Your task to perform on an android device: Open CNN.com Image 0: 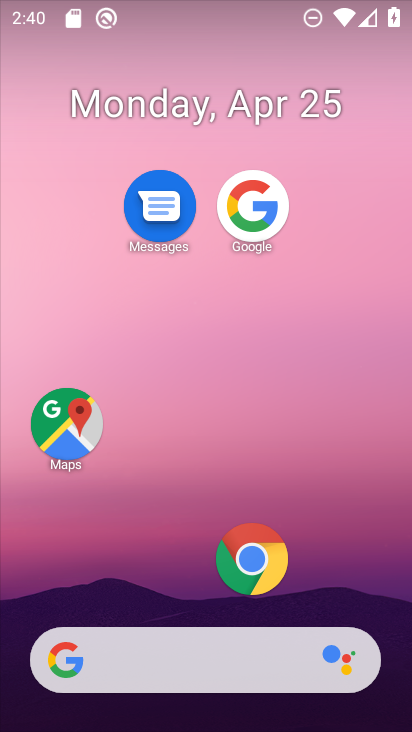
Step 0: click (254, 558)
Your task to perform on an android device: Open CNN.com Image 1: 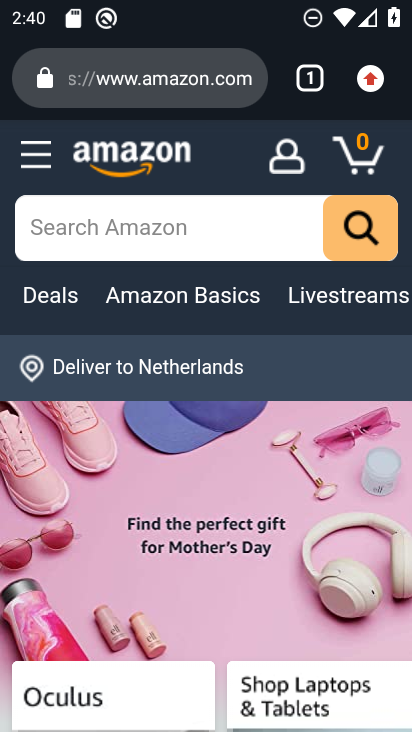
Step 1: click (224, 71)
Your task to perform on an android device: Open CNN.com Image 2: 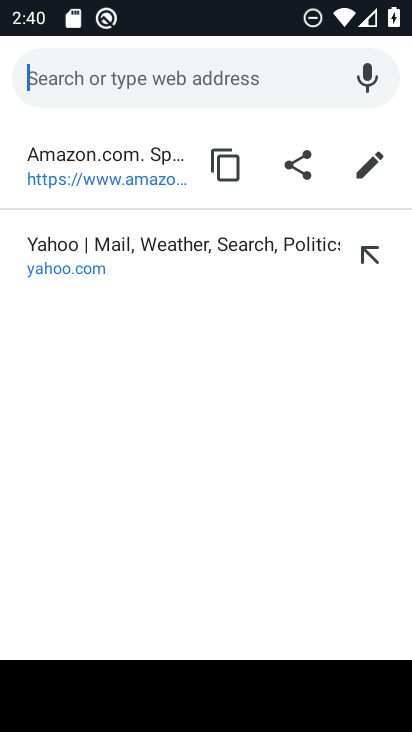
Step 2: type "cnn.com"
Your task to perform on an android device: Open CNN.com Image 3: 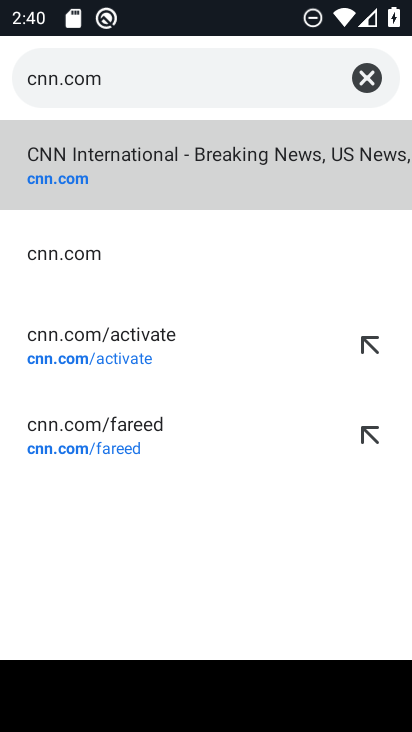
Step 3: click (64, 258)
Your task to perform on an android device: Open CNN.com Image 4: 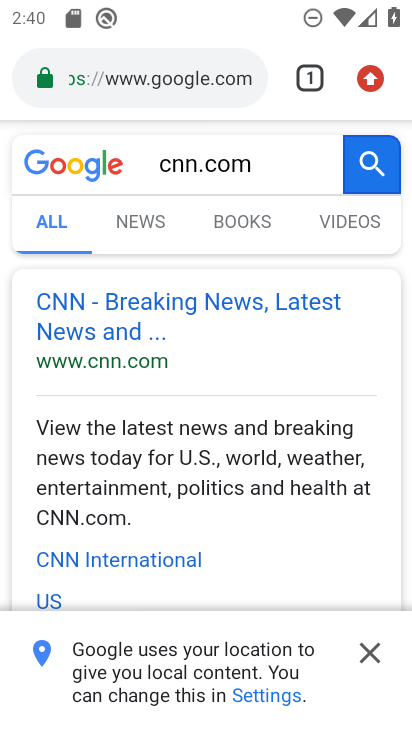
Step 4: task complete